Your task to perform on an android device: Open Google Maps and go to "Timeline" Image 0: 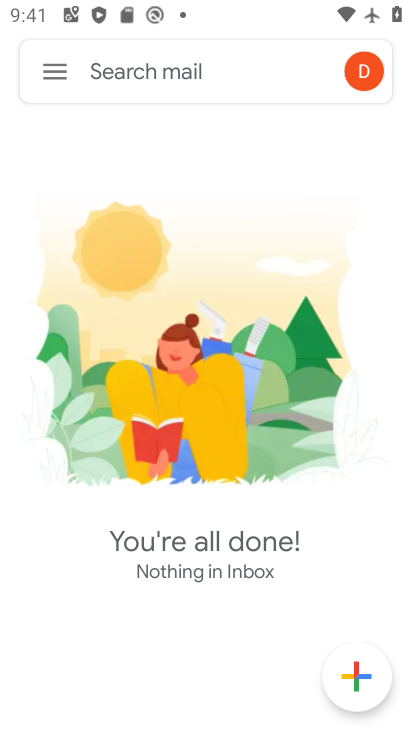
Step 0: press home button
Your task to perform on an android device: Open Google Maps and go to "Timeline" Image 1: 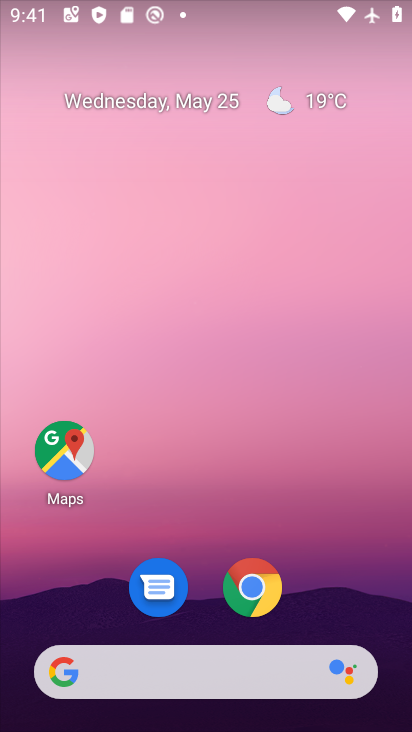
Step 1: click (62, 450)
Your task to perform on an android device: Open Google Maps and go to "Timeline" Image 2: 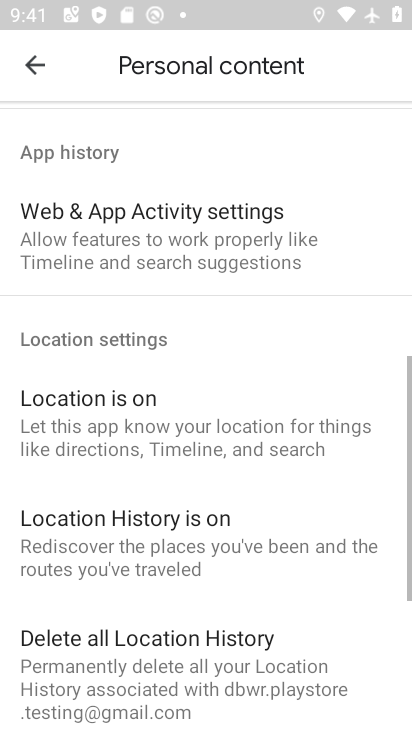
Step 2: press back button
Your task to perform on an android device: Open Google Maps and go to "Timeline" Image 3: 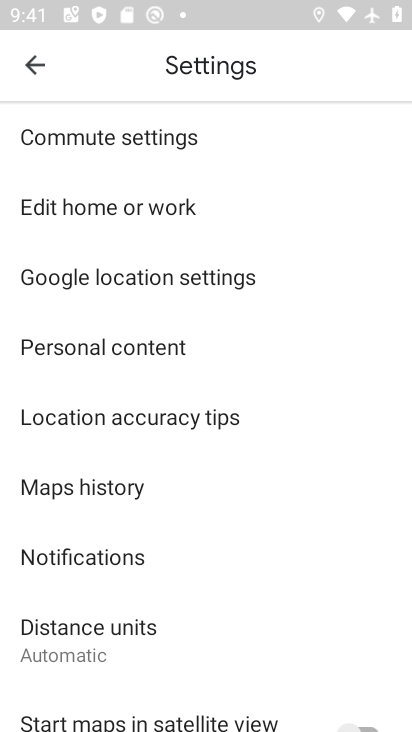
Step 3: press back button
Your task to perform on an android device: Open Google Maps and go to "Timeline" Image 4: 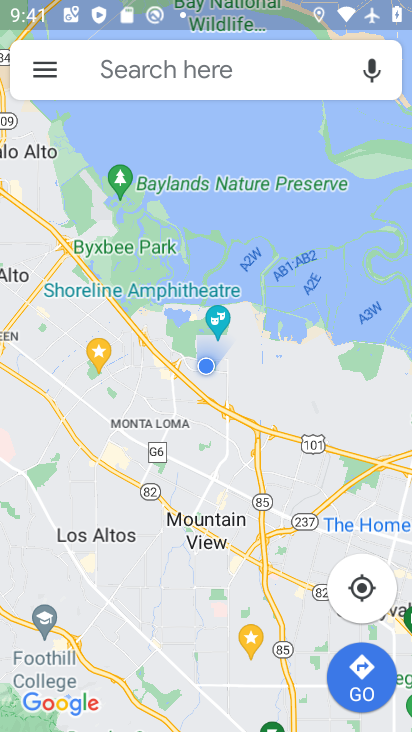
Step 4: click (45, 72)
Your task to perform on an android device: Open Google Maps and go to "Timeline" Image 5: 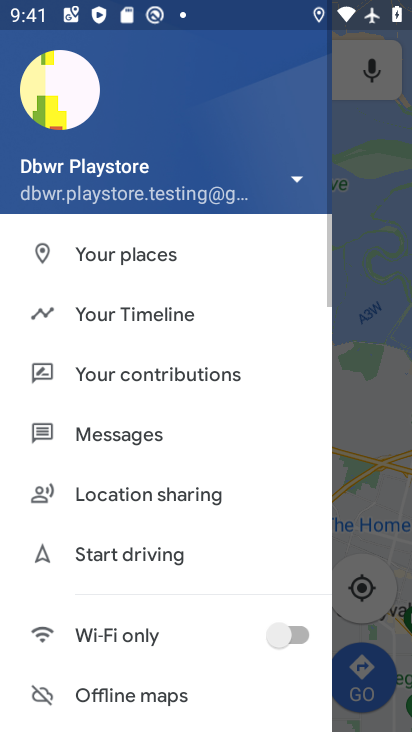
Step 5: click (124, 316)
Your task to perform on an android device: Open Google Maps and go to "Timeline" Image 6: 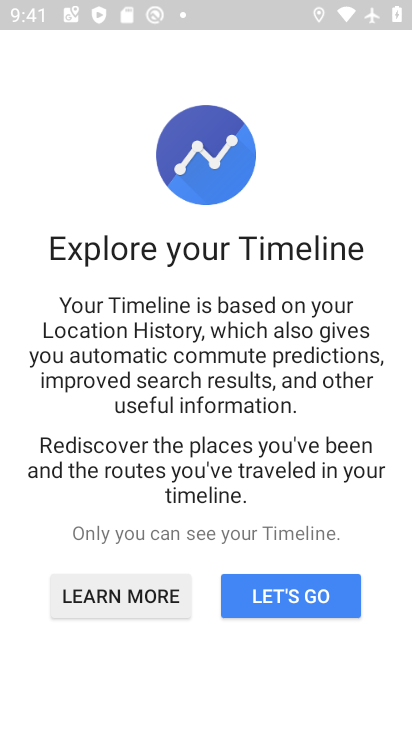
Step 6: task complete